Your task to perform on an android device: find which apps use the phone's location Image 0: 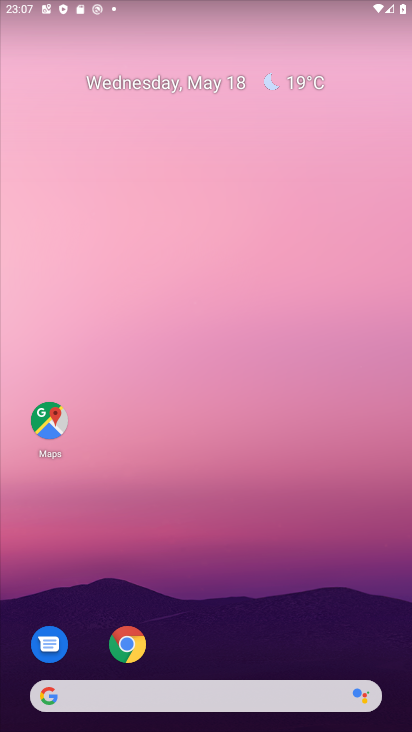
Step 0: drag from (265, 644) to (251, 208)
Your task to perform on an android device: find which apps use the phone's location Image 1: 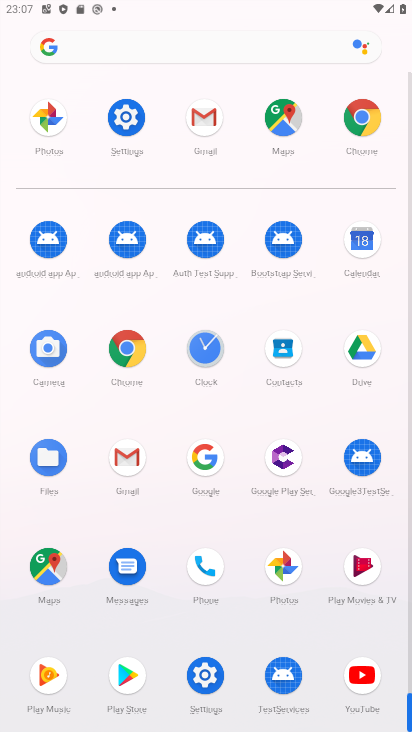
Step 1: click (127, 127)
Your task to perform on an android device: find which apps use the phone's location Image 2: 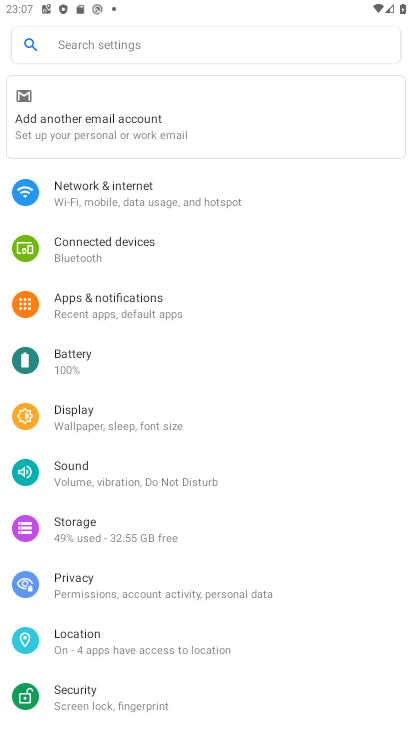
Step 2: drag from (220, 557) to (256, 292)
Your task to perform on an android device: find which apps use the phone's location Image 3: 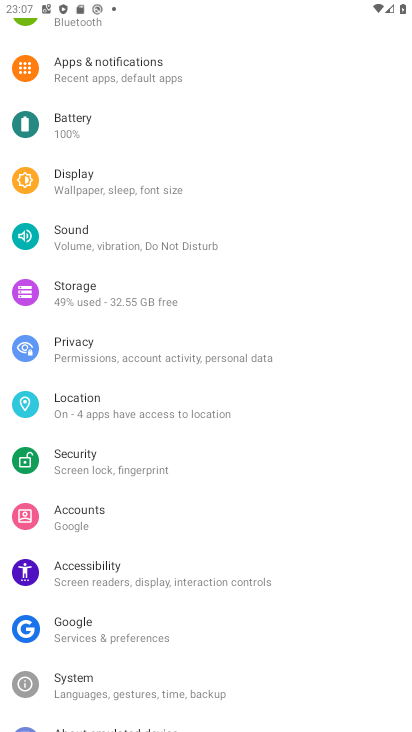
Step 3: click (103, 398)
Your task to perform on an android device: find which apps use the phone's location Image 4: 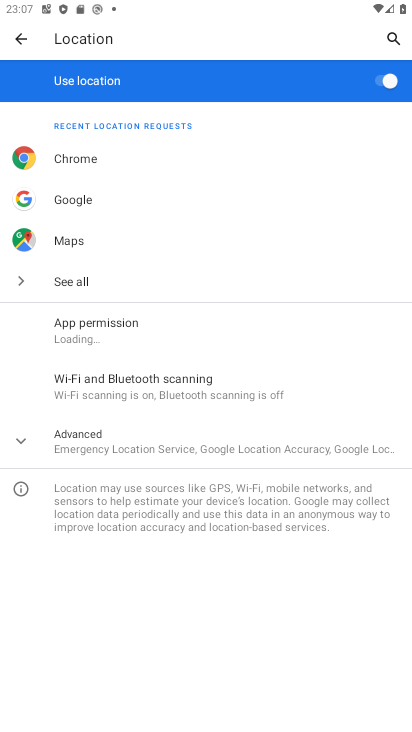
Step 4: click (127, 333)
Your task to perform on an android device: find which apps use the phone's location Image 5: 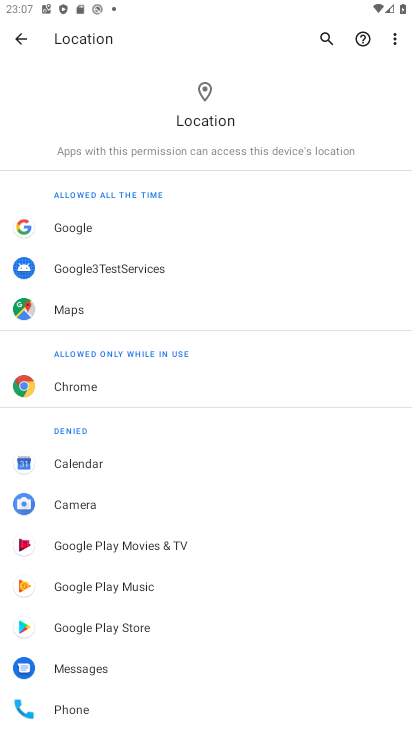
Step 5: task complete